Your task to perform on an android device: change the clock display to show seconds Image 0: 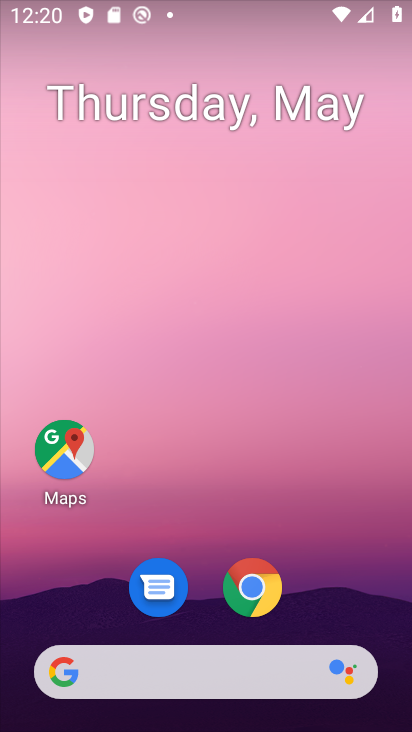
Step 0: drag from (240, 612) to (314, 82)
Your task to perform on an android device: change the clock display to show seconds Image 1: 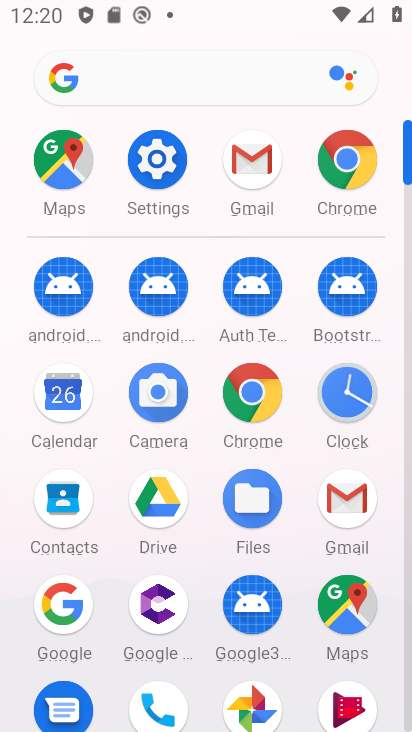
Step 1: click (329, 377)
Your task to perform on an android device: change the clock display to show seconds Image 2: 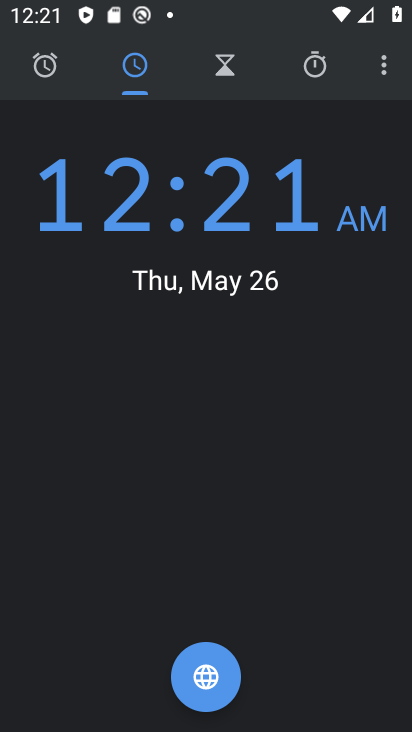
Step 2: click (388, 64)
Your task to perform on an android device: change the clock display to show seconds Image 3: 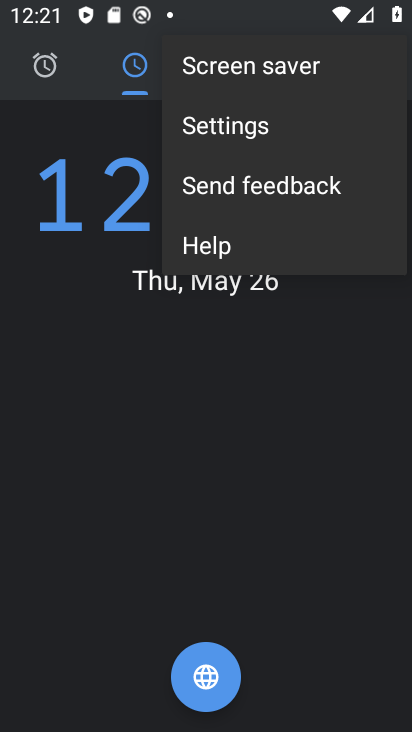
Step 3: click (263, 126)
Your task to perform on an android device: change the clock display to show seconds Image 4: 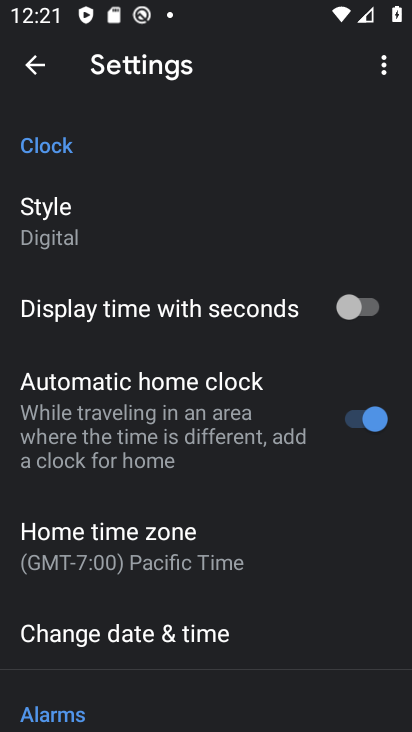
Step 4: click (355, 313)
Your task to perform on an android device: change the clock display to show seconds Image 5: 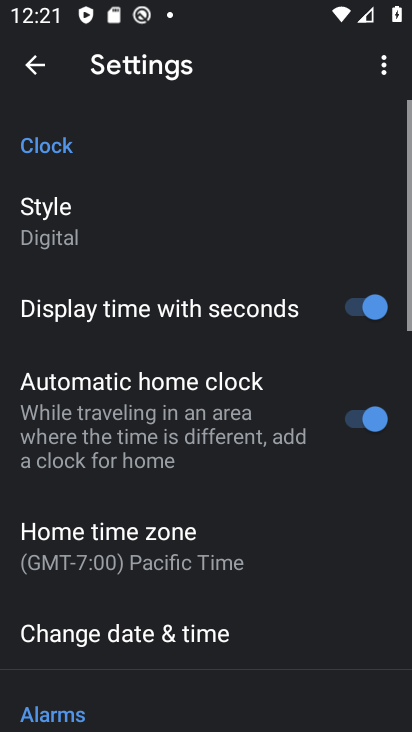
Step 5: task complete